Your task to perform on an android device: see sites visited before in the chrome app Image 0: 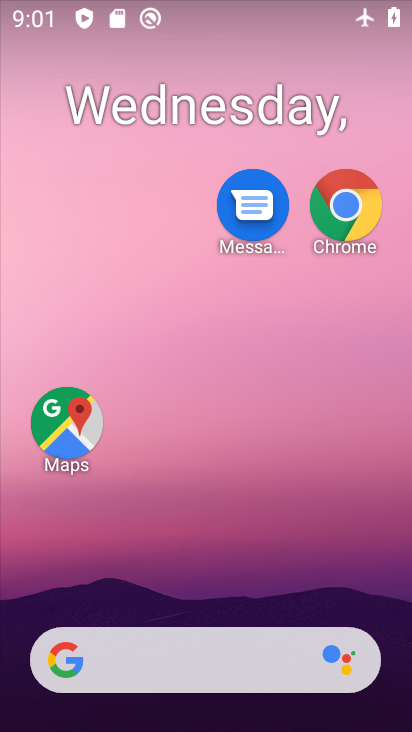
Step 0: drag from (221, 551) to (194, 69)
Your task to perform on an android device: see sites visited before in the chrome app Image 1: 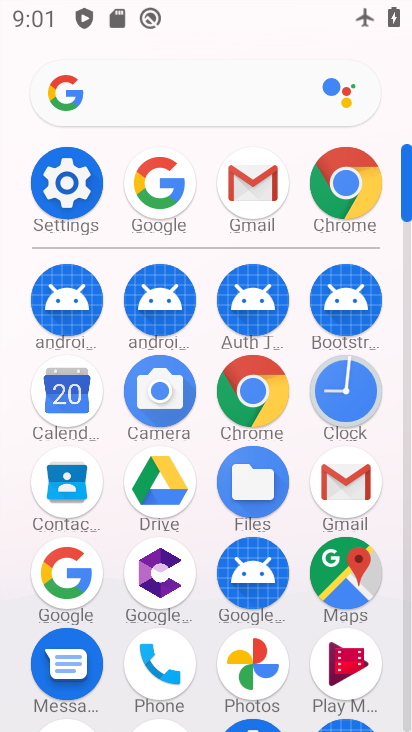
Step 1: click (249, 381)
Your task to perform on an android device: see sites visited before in the chrome app Image 2: 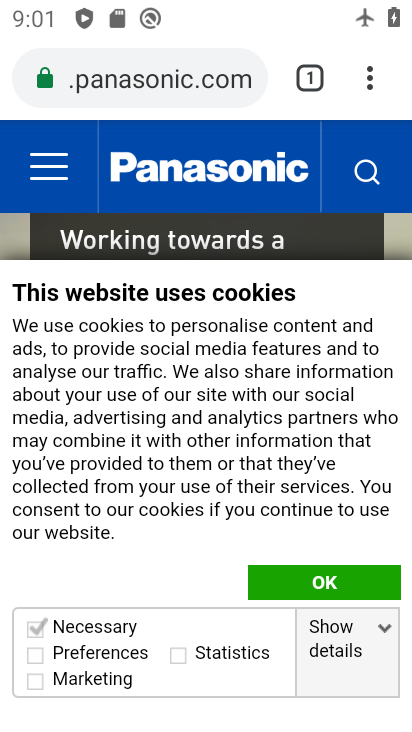
Step 2: drag from (374, 83) to (169, 377)
Your task to perform on an android device: see sites visited before in the chrome app Image 3: 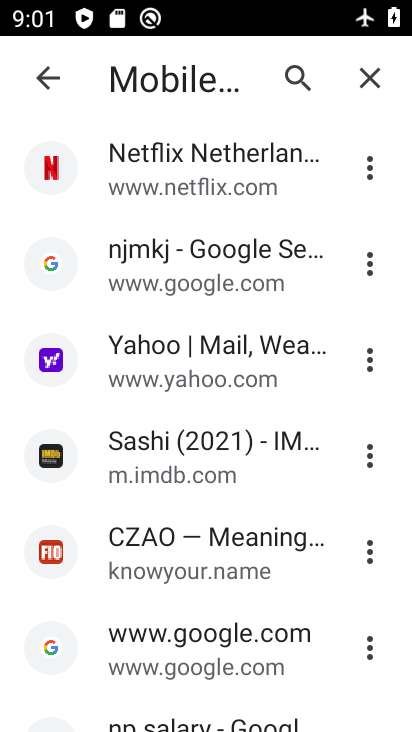
Step 3: drag from (244, 516) to (307, 157)
Your task to perform on an android device: see sites visited before in the chrome app Image 4: 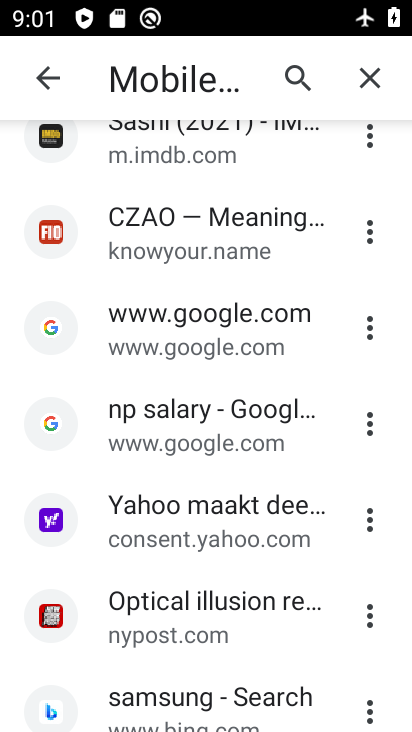
Step 4: click (201, 321)
Your task to perform on an android device: see sites visited before in the chrome app Image 5: 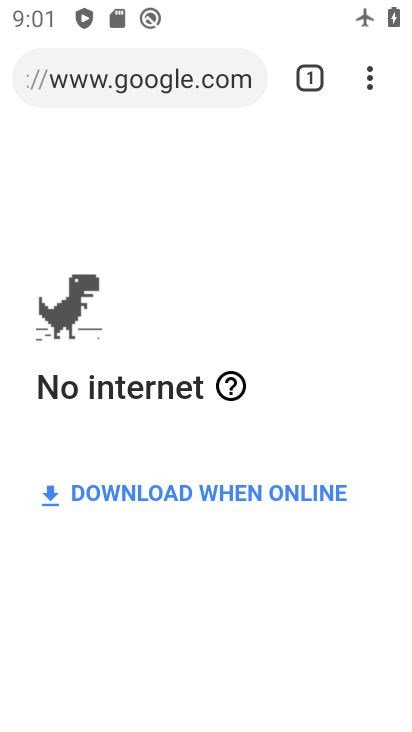
Step 5: task complete